Your task to perform on an android device: Do I have any events this weekend? Image 0: 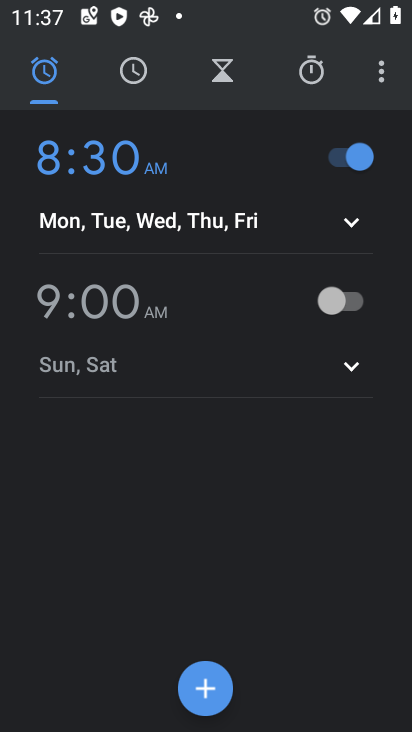
Step 0: press home button
Your task to perform on an android device: Do I have any events this weekend? Image 1: 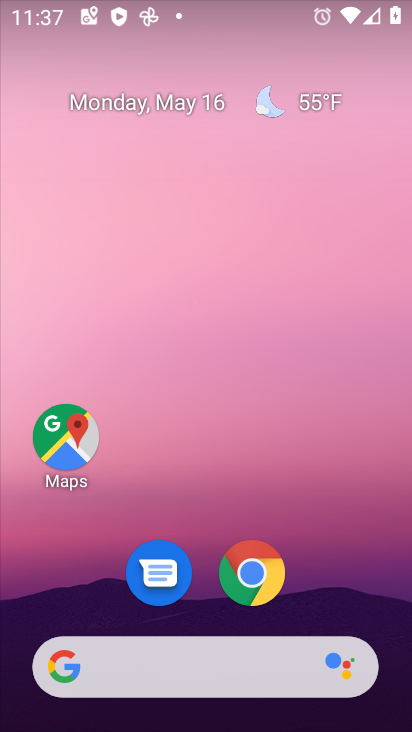
Step 1: drag from (323, 557) to (293, 274)
Your task to perform on an android device: Do I have any events this weekend? Image 2: 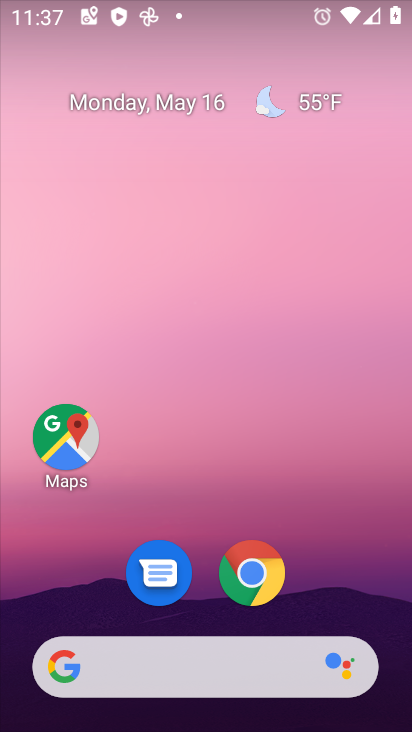
Step 2: drag from (351, 578) to (294, 188)
Your task to perform on an android device: Do I have any events this weekend? Image 3: 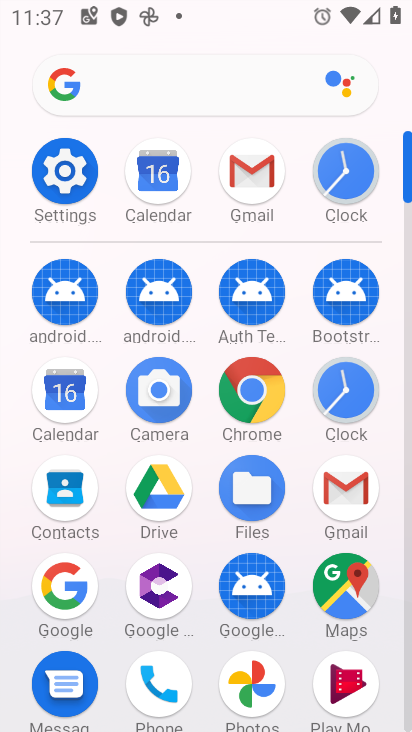
Step 3: click (144, 187)
Your task to perform on an android device: Do I have any events this weekend? Image 4: 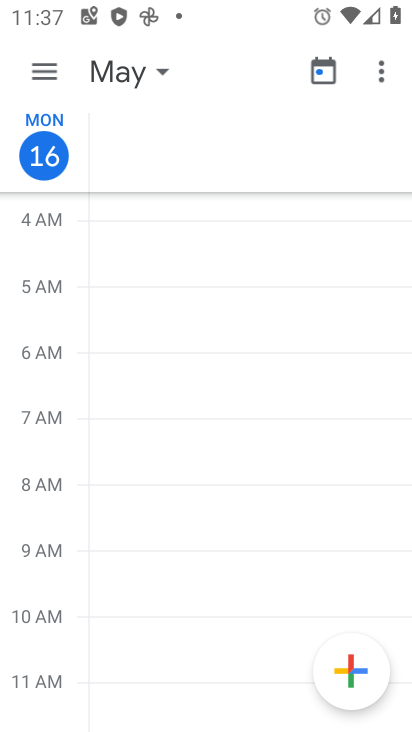
Step 4: click (141, 68)
Your task to perform on an android device: Do I have any events this weekend? Image 5: 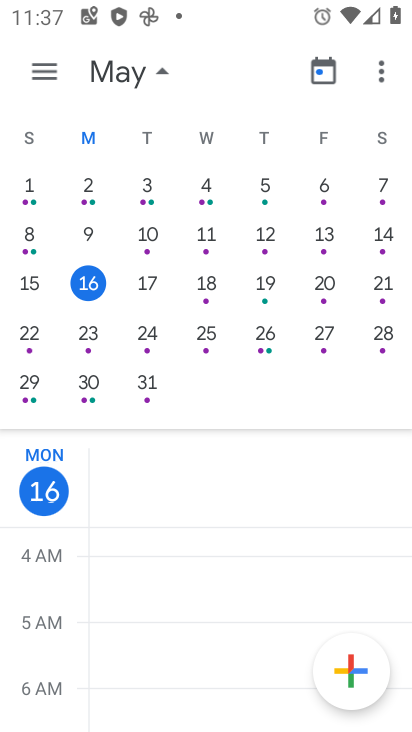
Step 5: click (319, 280)
Your task to perform on an android device: Do I have any events this weekend? Image 6: 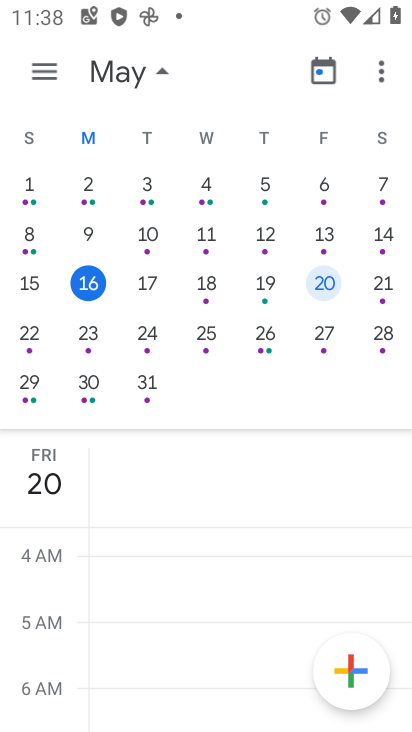
Step 6: click (50, 81)
Your task to perform on an android device: Do I have any events this weekend? Image 7: 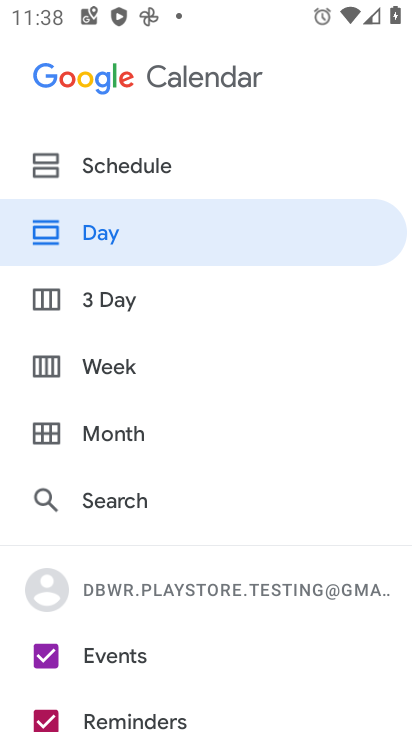
Step 7: click (206, 292)
Your task to perform on an android device: Do I have any events this weekend? Image 8: 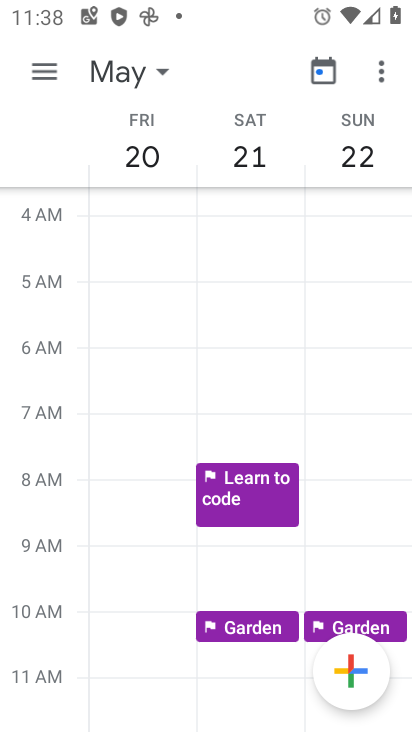
Step 8: task complete